Your task to perform on an android device: turn on location history Image 0: 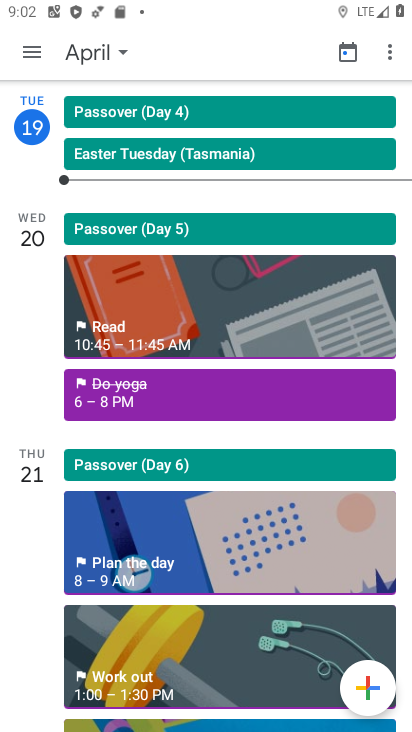
Step 0: press home button
Your task to perform on an android device: turn on location history Image 1: 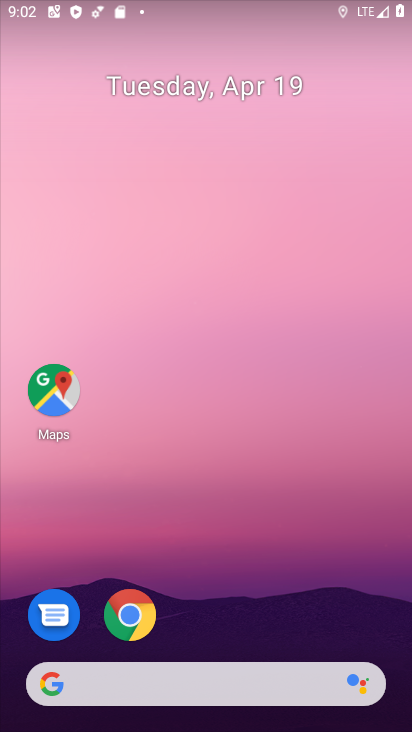
Step 1: drag from (327, 609) to (212, 44)
Your task to perform on an android device: turn on location history Image 2: 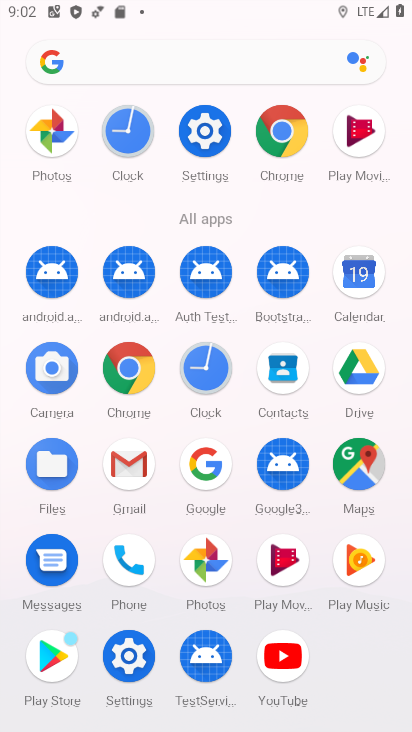
Step 2: click (188, 111)
Your task to perform on an android device: turn on location history Image 3: 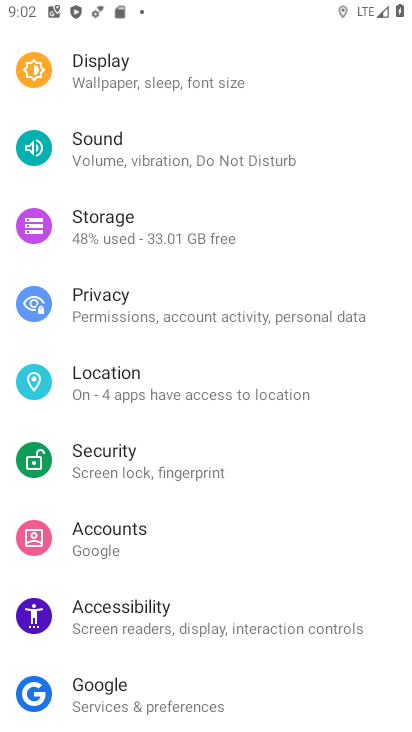
Step 3: click (95, 381)
Your task to perform on an android device: turn on location history Image 4: 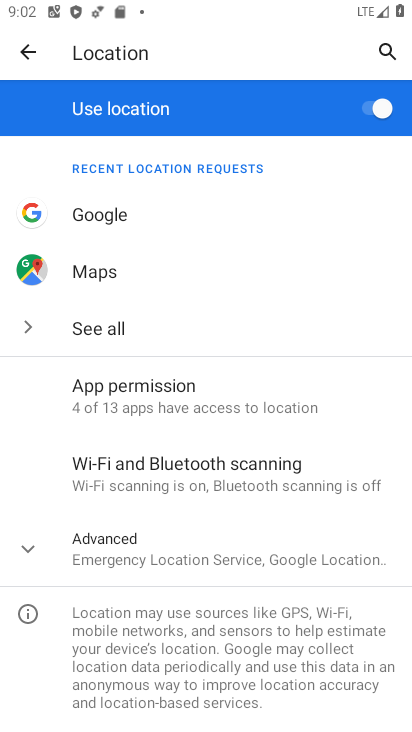
Step 4: click (123, 565)
Your task to perform on an android device: turn on location history Image 5: 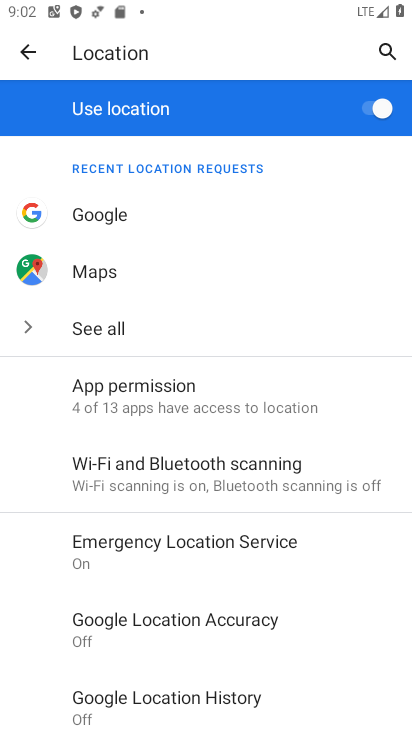
Step 5: click (163, 691)
Your task to perform on an android device: turn on location history Image 6: 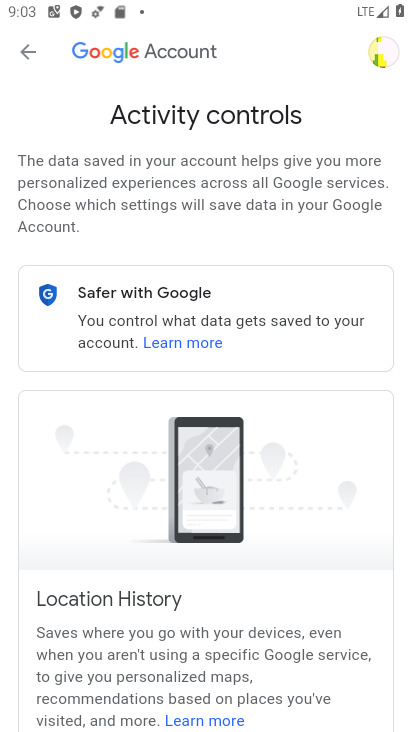
Step 6: drag from (182, 672) to (284, 72)
Your task to perform on an android device: turn on location history Image 7: 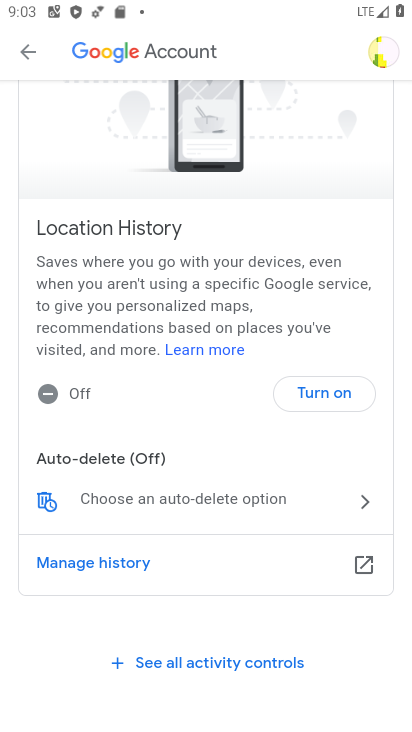
Step 7: click (312, 397)
Your task to perform on an android device: turn on location history Image 8: 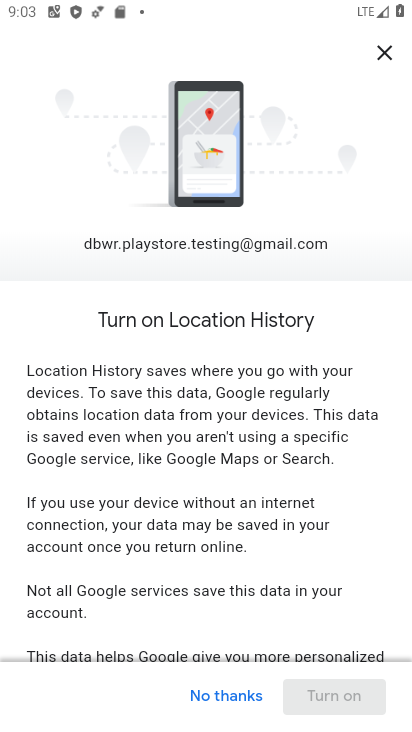
Step 8: drag from (190, 638) to (240, 89)
Your task to perform on an android device: turn on location history Image 9: 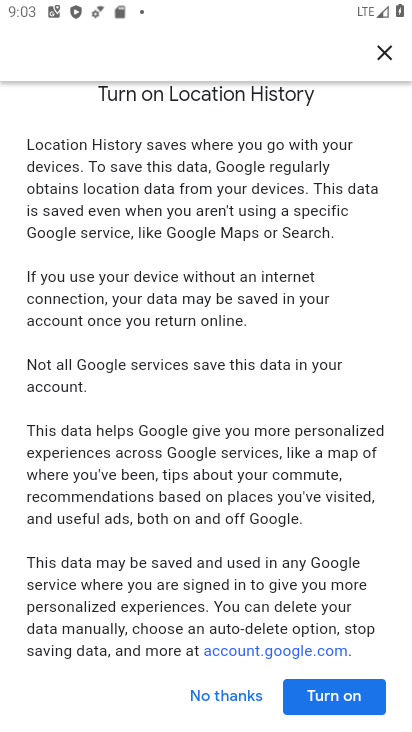
Step 9: click (364, 700)
Your task to perform on an android device: turn on location history Image 10: 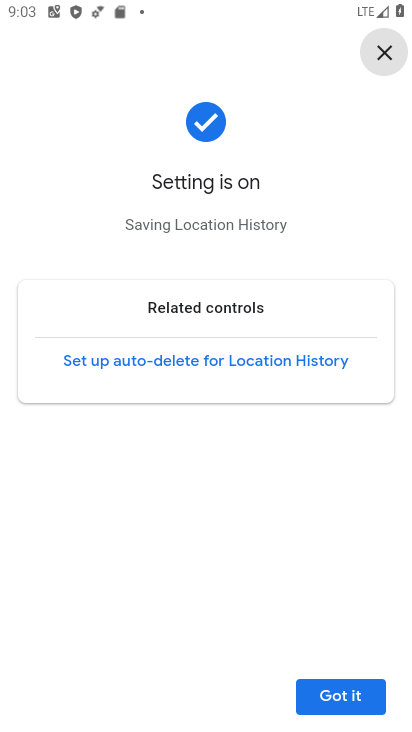
Step 10: click (370, 691)
Your task to perform on an android device: turn on location history Image 11: 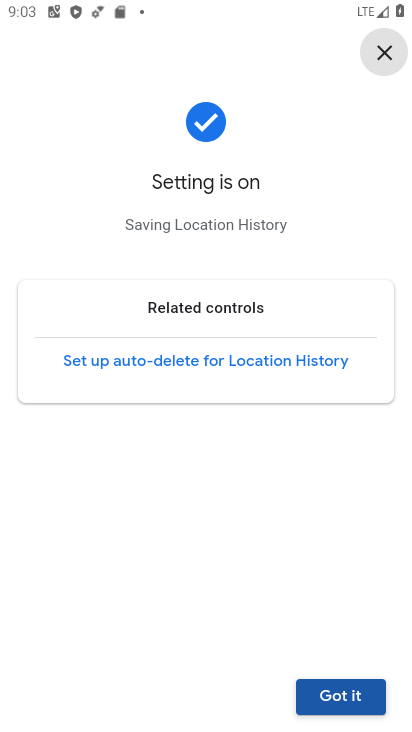
Step 11: task complete